Your task to perform on an android device: View the shopping cart on bestbuy.com. Add "macbook pro 15 inch" to the cart on bestbuy.com Image 0: 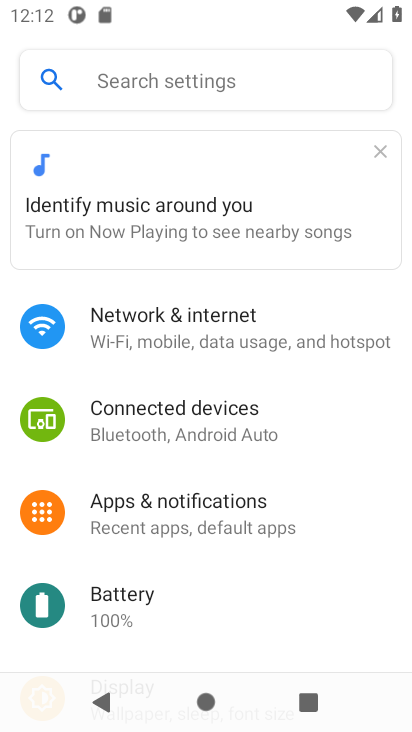
Step 0: press home button
Your task to perform on an android device: View the shopping cart on bestbuy.com. Add "macbook pro 15 inch" to the cart on bestbuy.com Image 1: 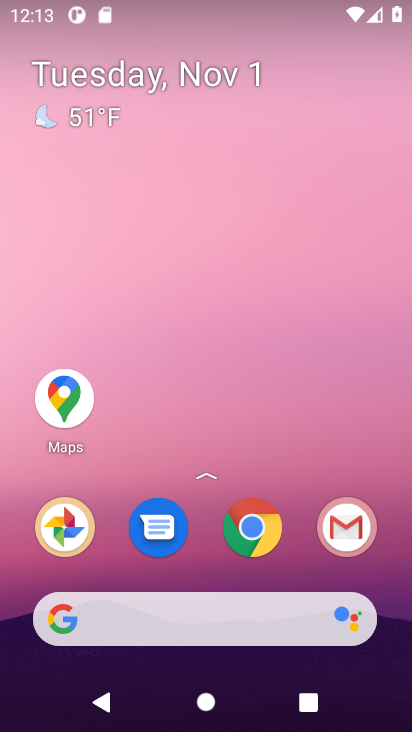
Step 1: click (247, 521)
Your task to perform on an android device: View the shopping cart on bestbuy.com. Add "macbook pro 15 inch" to the cart on bestbuy.com Image 2: 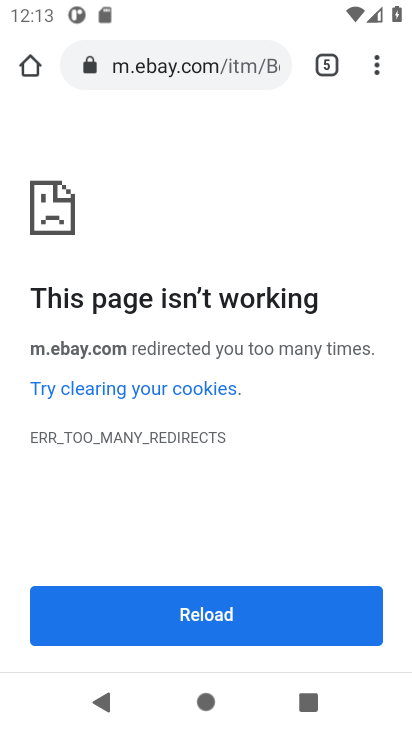
Step 2: click (203, 43)
Your task to perform on an android device: View the shopping cart on bestbuy.com. Add "macbook pro 15 inch" to the cart on bestbuy.com Image 3: 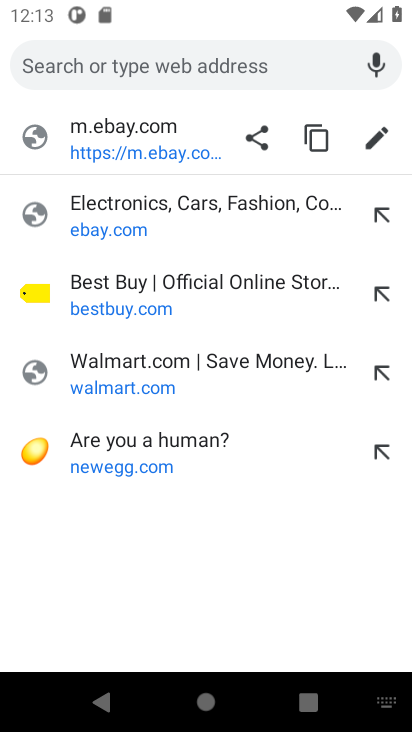
Step 3: type "bestbuy.com"
Your task to perform on an android device: View the shopping cart on bestbuy.com. Add "macbook pro 15 inch" to the cart on bestbuy.com Image 4: 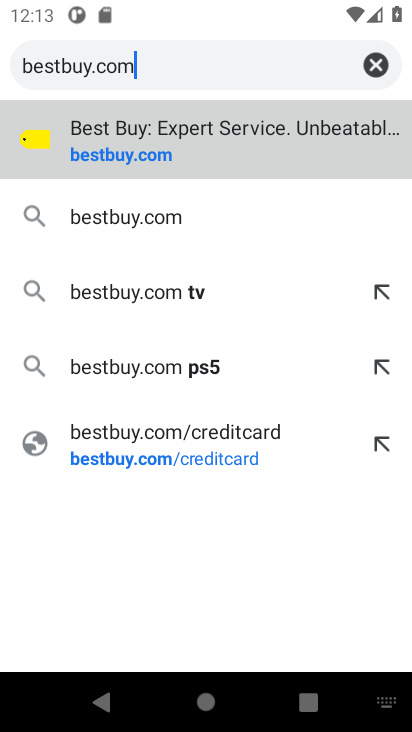
Step 4: click (122, 125)
Your task to perform on an android device: View the shopping cart on bestbuy.com. Add "macbook pro 15 inch" to the cart on bestbuy.com Image 5: 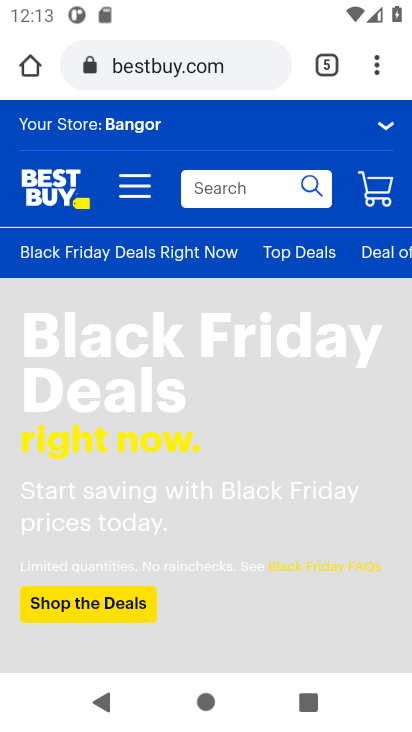
Step 5: click (375, 185)
Your task to perform on an android device: View the shopping cart on bestbuy.com. Add "macbook pro 15 inch" to the cart on bestbuy.com Image 6: 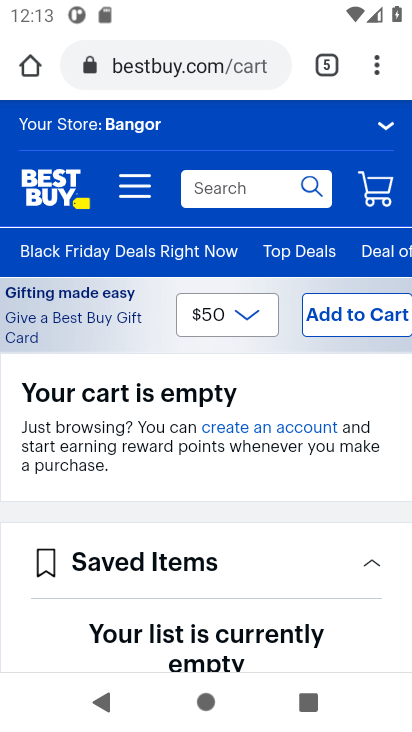
Step 6: click (221, 188)
Your task to perform on an android device: View the shopping cart on bestbuy.com. Add "macbook pro 15 inch" to the cart on bestbuy.com Image 7: 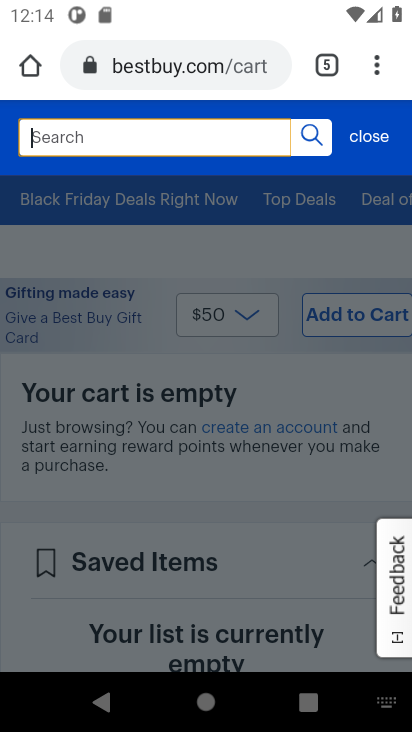
Step 7: type "macbook pro 15 inch"
Your task to perform on an android device: View the shopping cart on bestbuy.com. Add "macbook pro 15 inch" to the cart on bestbuy.com Image 8: 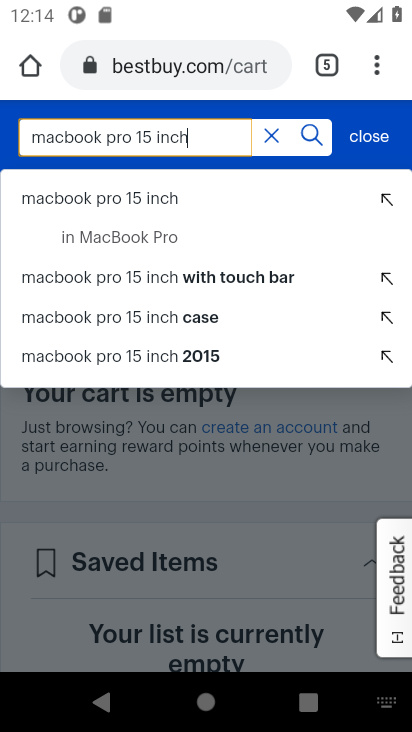
Step 8: click (114, 192)
Your task to perform on an android device: View the shopping cart on bestbuy.com. Add "macbook pro 15 inch" to the cart on bestbuy.com Image 9: 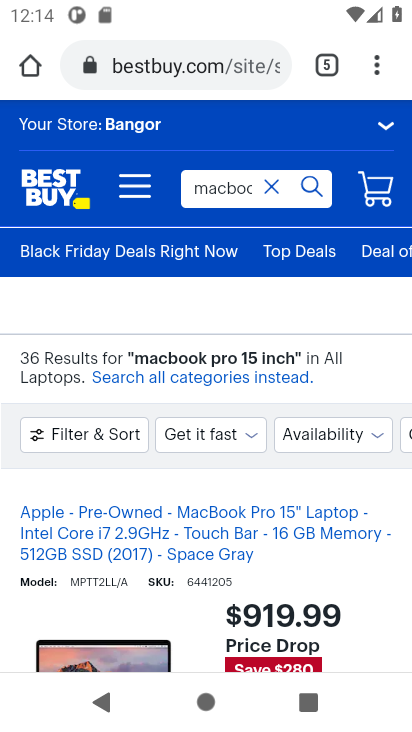
Step 9: drag from (235, 566) to (225, 167)
Your task to perform on an android device: View the shopping cart on bestbuy.com. Add "macbook pro 15 inch" to the cart on bestbuy.com Image 10: 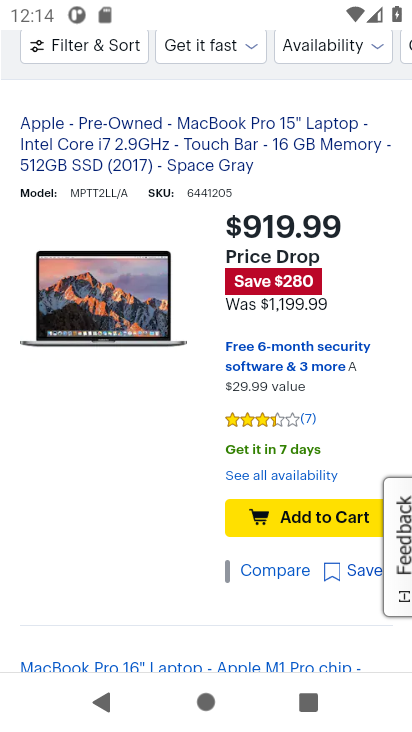
Step 10: click (296, 517)
Your task to perform on an android device: View the shopping cart on bestbuy.com. Add "macbook pro 15 inch" to the cart on bestbuy.com Image 11: 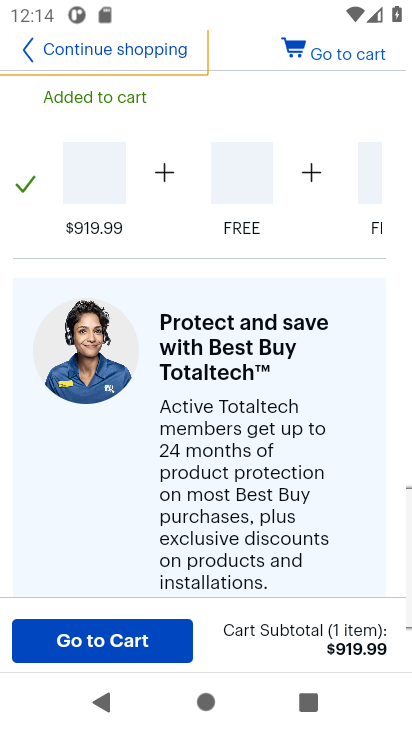
Step 11: click (342, 53)
Your task to perform on an android device: View the shopping cart on bestbuy.com. Add "macbook pro 15 inch" to the cart on bestbuy.com Image 12: 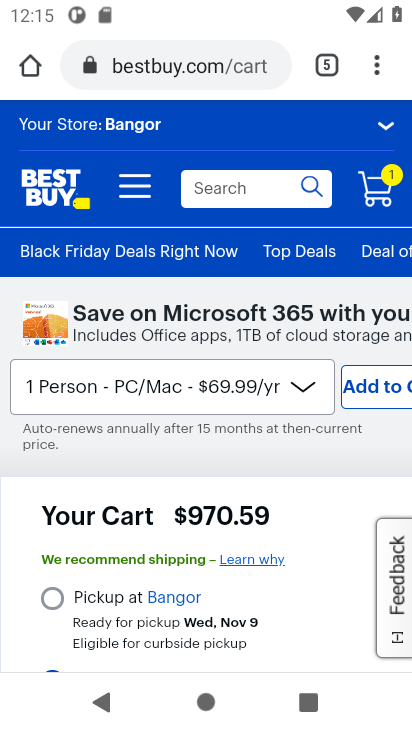
Step 12: task complete